Your task to perform on an android device: What's on my calendar today? Image 0: 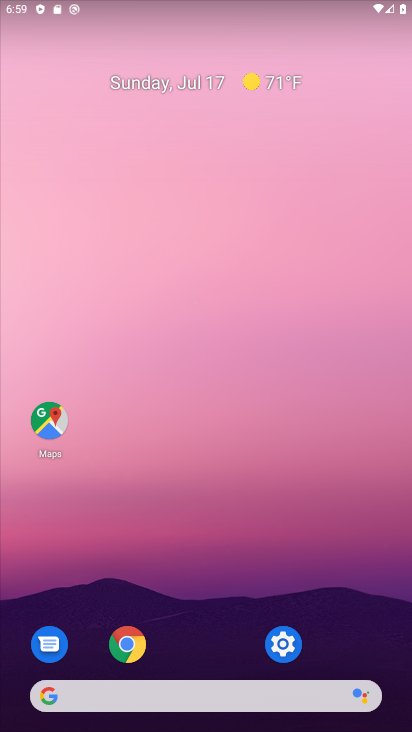
Step 0: drag from (253, 709) to (348, 107)
Your task to perform on an android device: What's on my calendar today? Image 1: 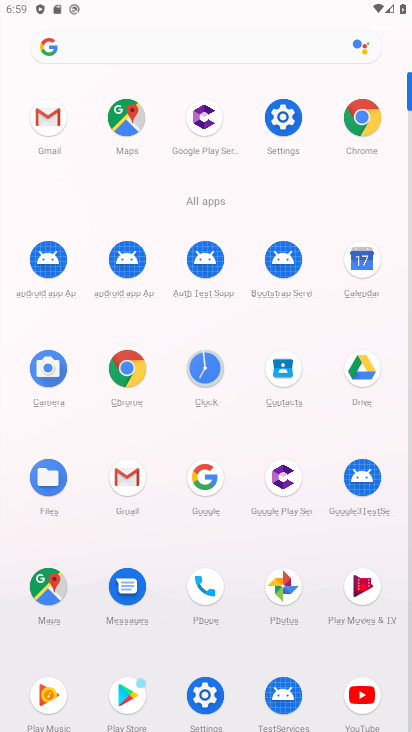
Step 1: click (350, 254)
Your task to perform on an android device: What's on my calendar today? Image 2: 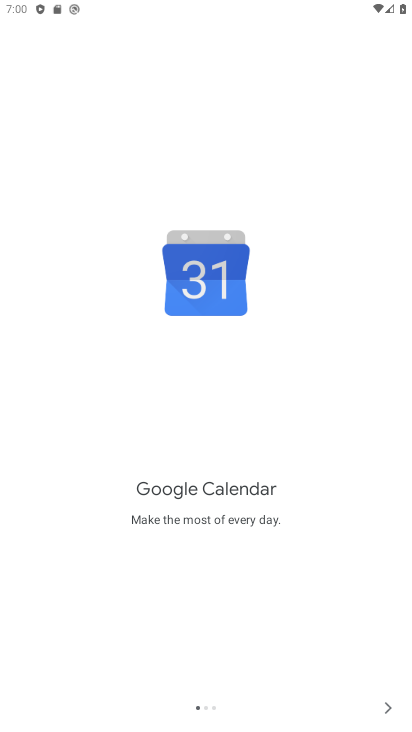
Step 2: click (386, 716)
Your task to perform on an android device: What's on my calendar today? Image 3: 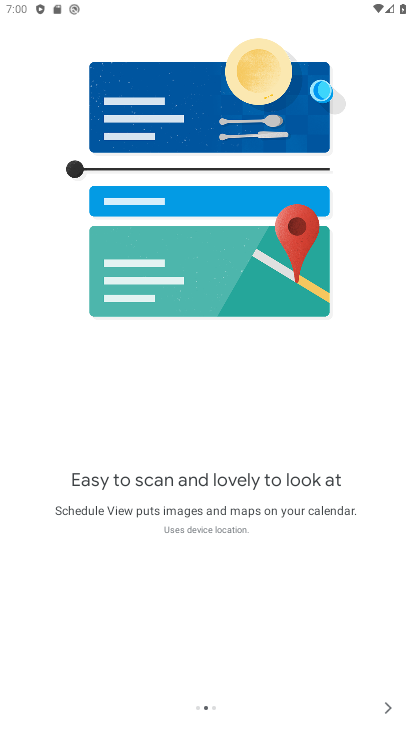
Step 3: click (386, 716)
Your task to perform on an android device: What's on my calendar today? Image 4: 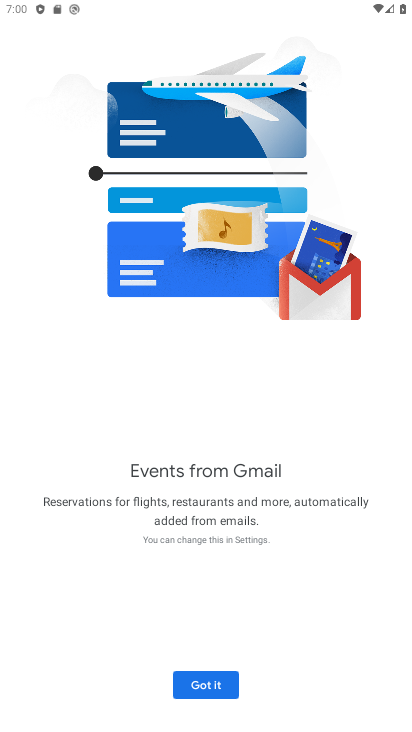
Step 4: click (386, 716)
Your task to perform on an android device: What's on my calendar today? Image 5: 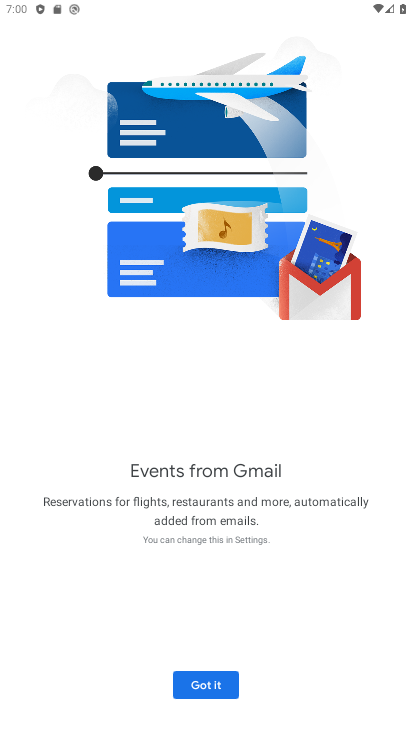
Step 5: click (180, 675)
Your task to perform on an android device: What's on my calendar today? Image 6: 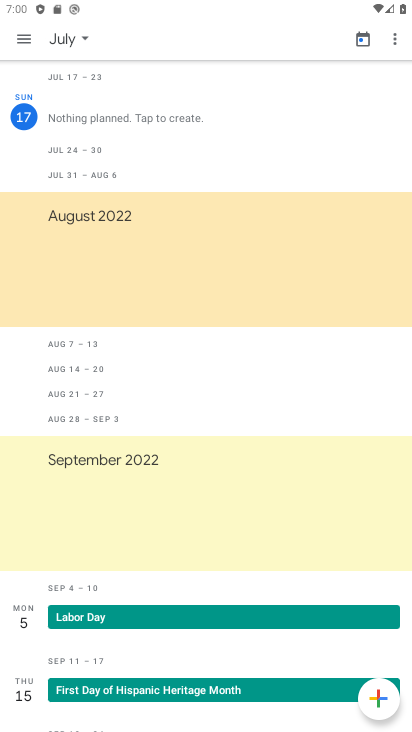
Step 6: task complete